Your task to perform on an android device: open wifi settings Image 0: 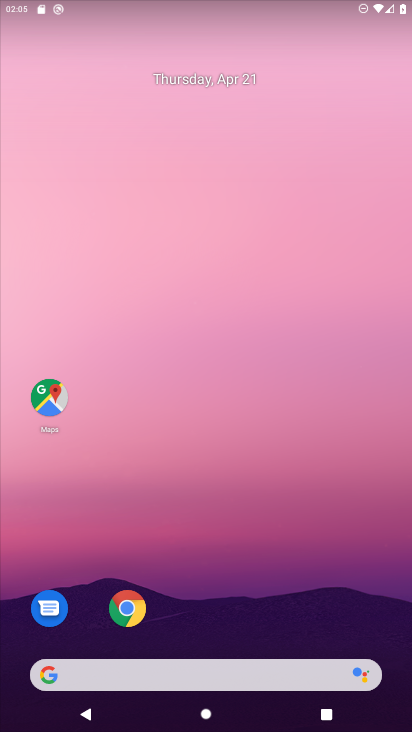
Step 0: click (257, 193)
Your task to perform on an android device: open wifi settings Image 1: 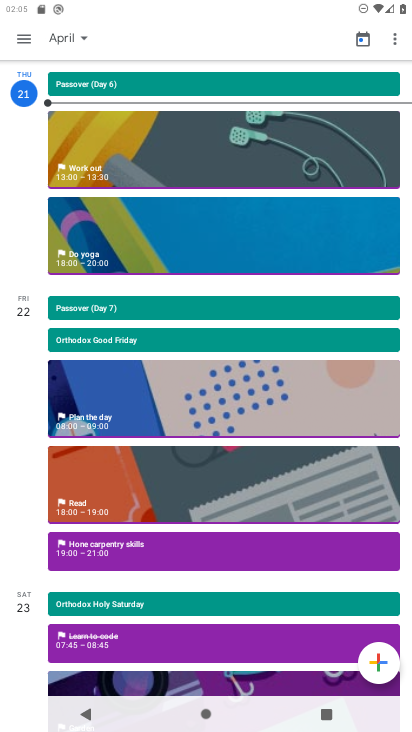
Step 1: press home button
Your task to perform on an android device: open wifi settings Image 2: 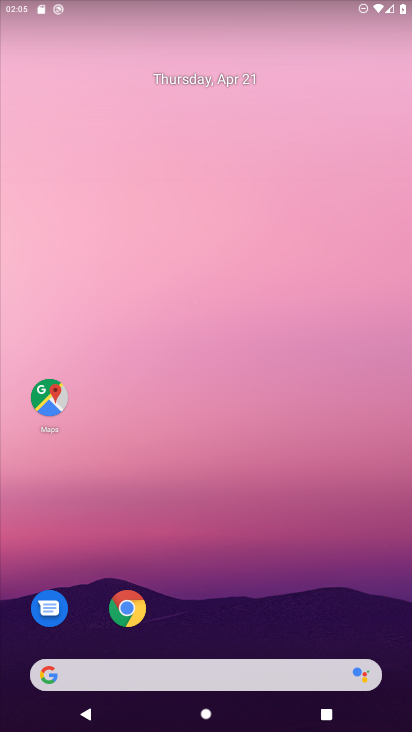
Step 2: drag from (251, 468) to (266, 199)
Your task to perform on an android device: open wifi settings Image 3: 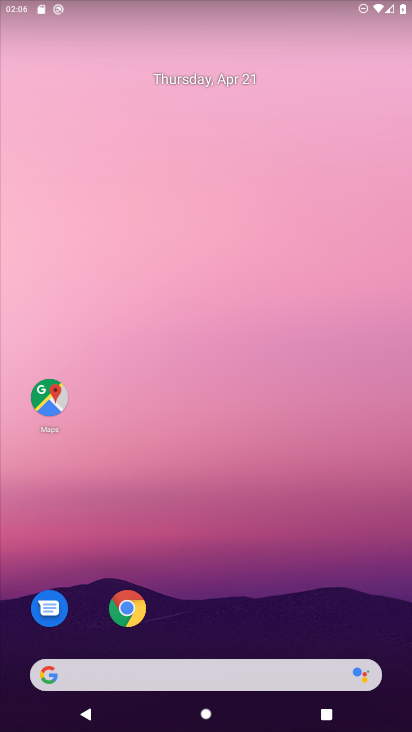
Step 3: drag from (240, 586) to (239, 173)
Your task to perform on an android device: open wifi settings Image 4: 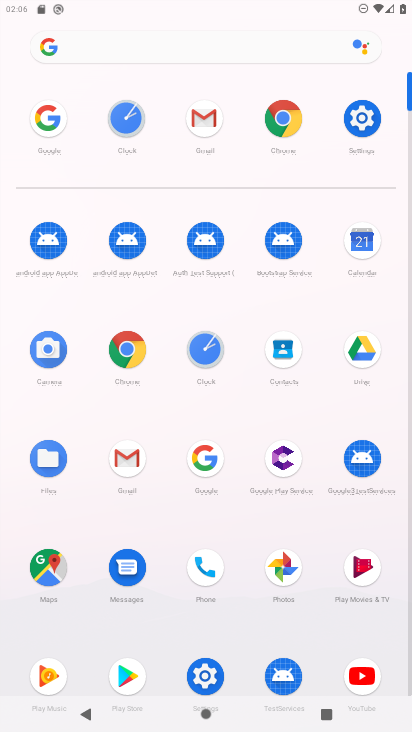
Step 4: click (352, 118)
Your task to perform on an android device: open wifi settings Image 5: 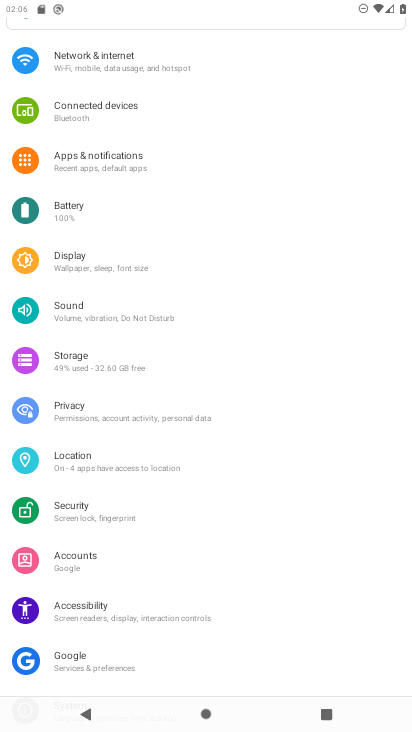
Step 5: click (149, 55)
Your task to perform on an android device: open wifi settings Image 6: 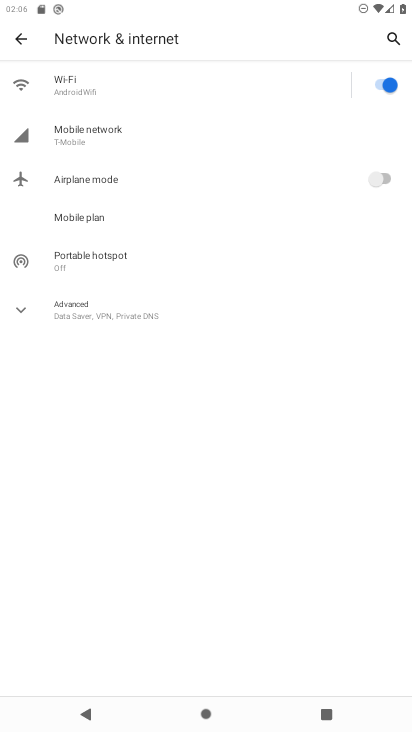
Step 6: click (149, 83)
Your task to perform on an android device: open wifi settings Image 7: 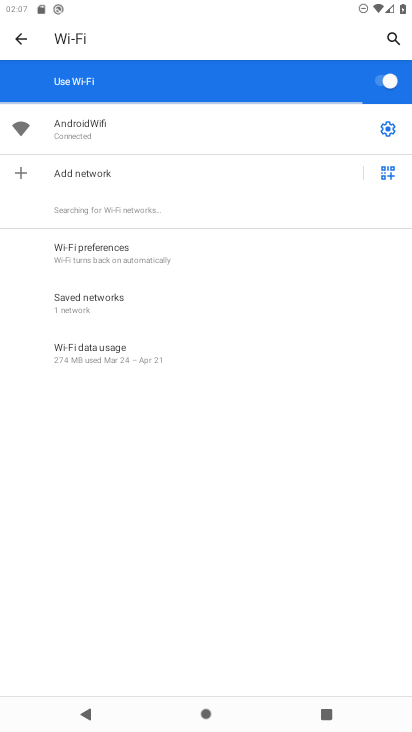
Step 7: task complete